Your task to perform on an android device: turn on the 12-hour format for clock Image 0: 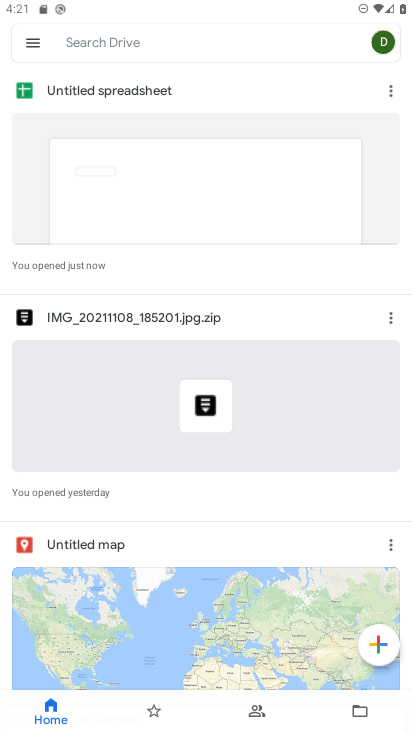
Step 0: press home button
Your task to perform on an android device: turn on the 12-hour format for clock Image 1: 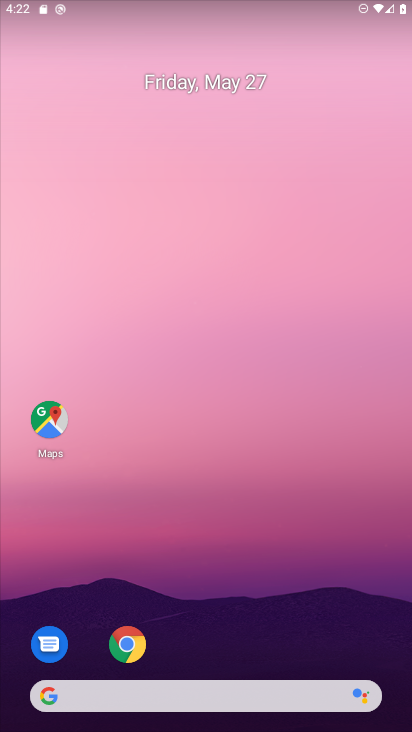
Step 1: drag from (158, 662) to (181, 97)
Your task to perform on an android device: turn on the 12-hour format for clock Image 2: 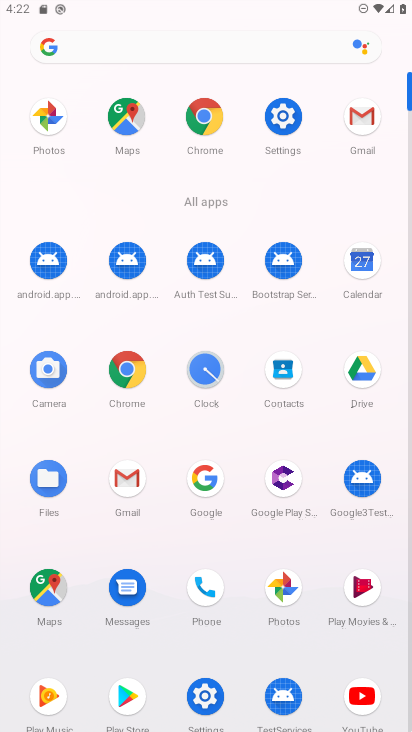
Step 2: click (194, 366)
Your task to perform on an android device: turn on the 12-hour format for clock Image 3: 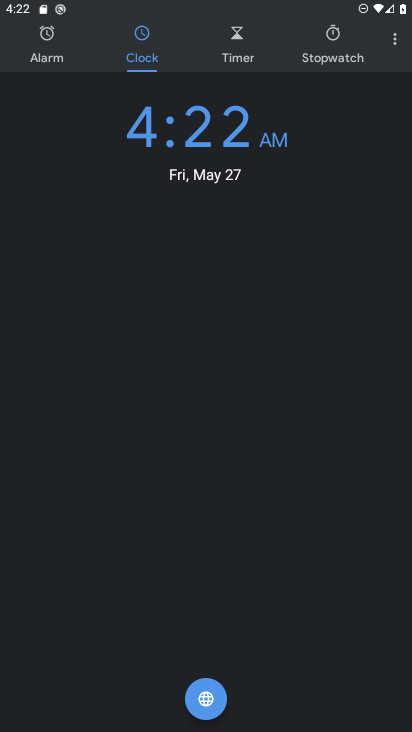
Step 3: click (404, 45)
Your task to perform on an android device: turn on the 12-hour format for clock Image 4: 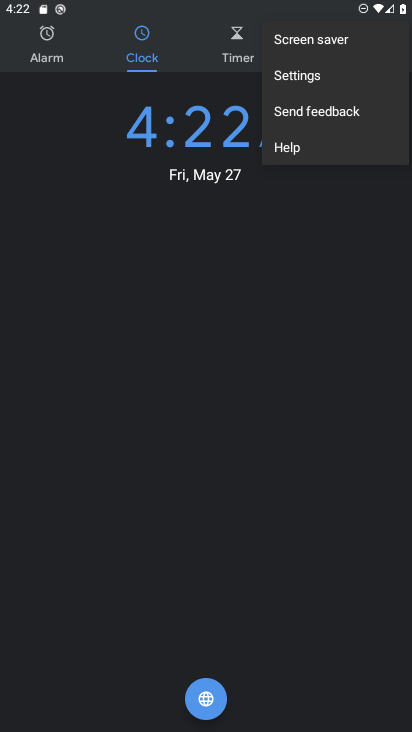
Step 4: click (338, 91)
Your task to perform on an android device: turn on the 12-hour format for clock Image 5: 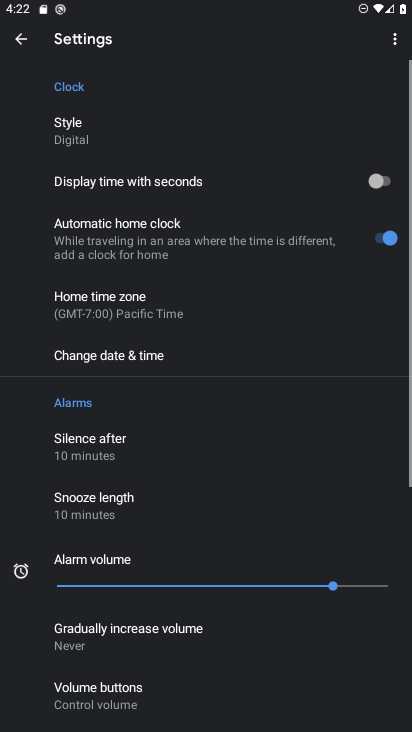
Step 5: task complete